Your task to perform on an android device: What's the weather like in Moscow? Image 0: 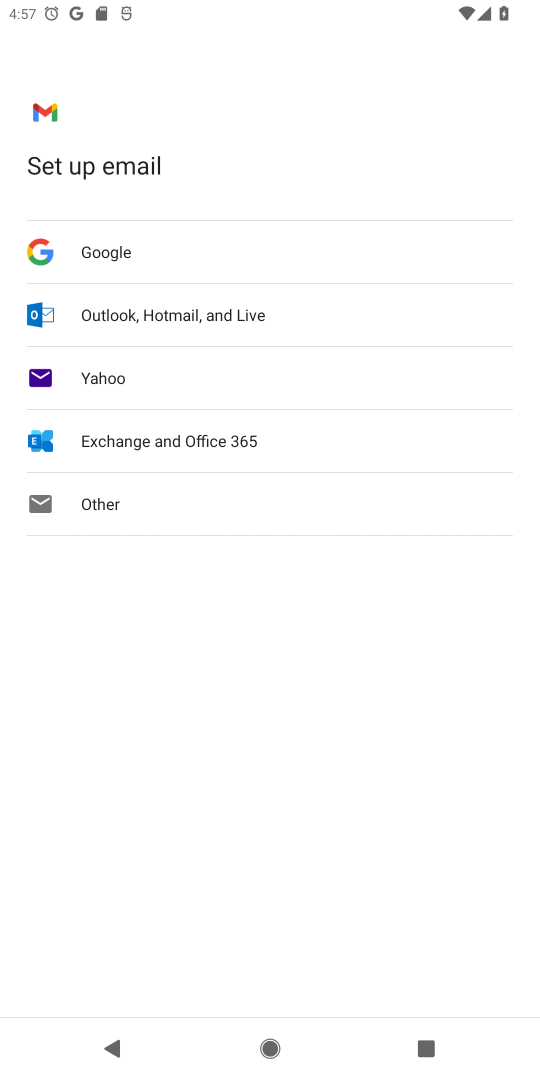
Step 0: task complete